Your task to perform on an android device: open app "File Manager" (install if not already installed) Image 0: 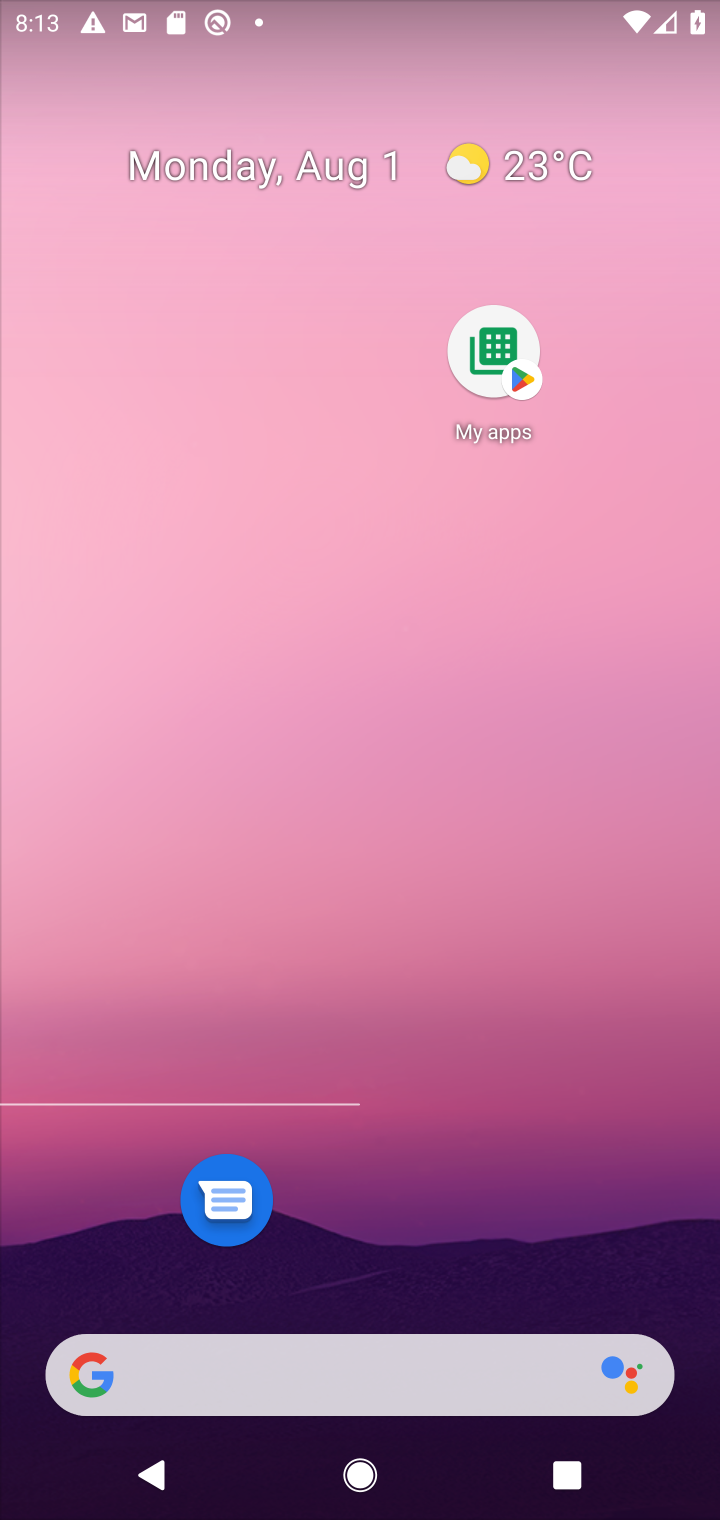
Step 0: drag from (345, 1298) to (535, 98)
Your task to perform on an android device: open app "File Manager" (install if not already installed) Image 1: 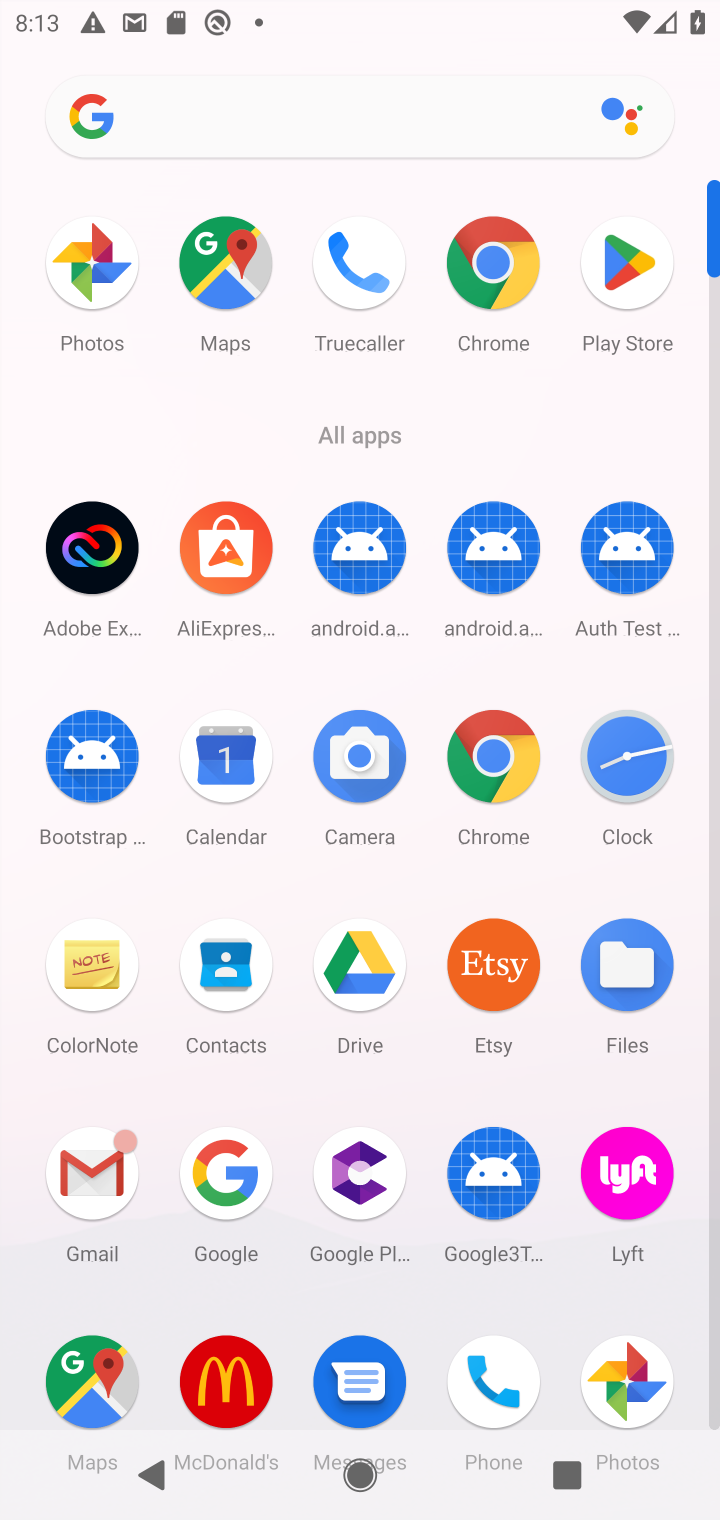
Step 1: click (618, 267)
Your task to perform on an android device: open app "File Manager" (install if not already installed) Image 2: 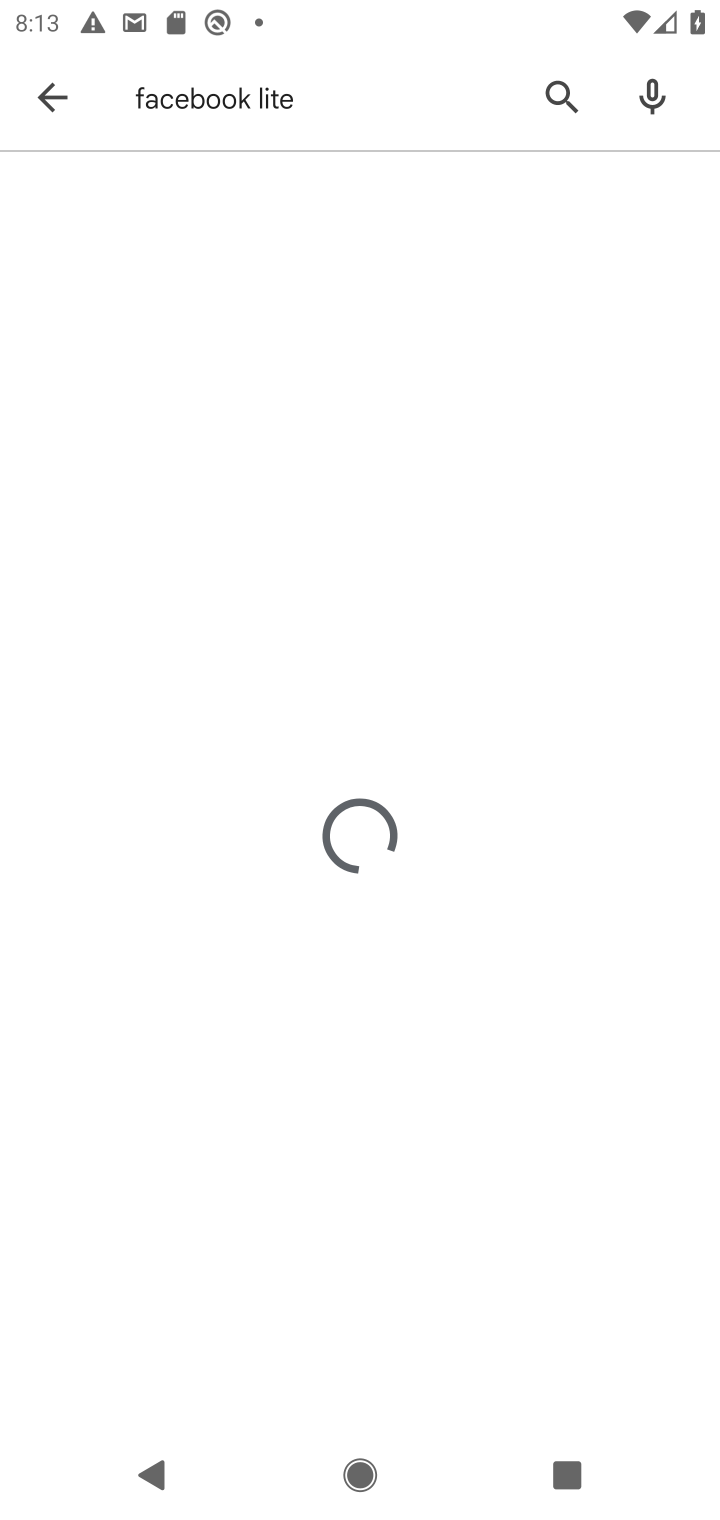
Step 2: click (547, 100)
Your task to perform on an android device: open app "File Manager" (install if not already installed) Image 3: 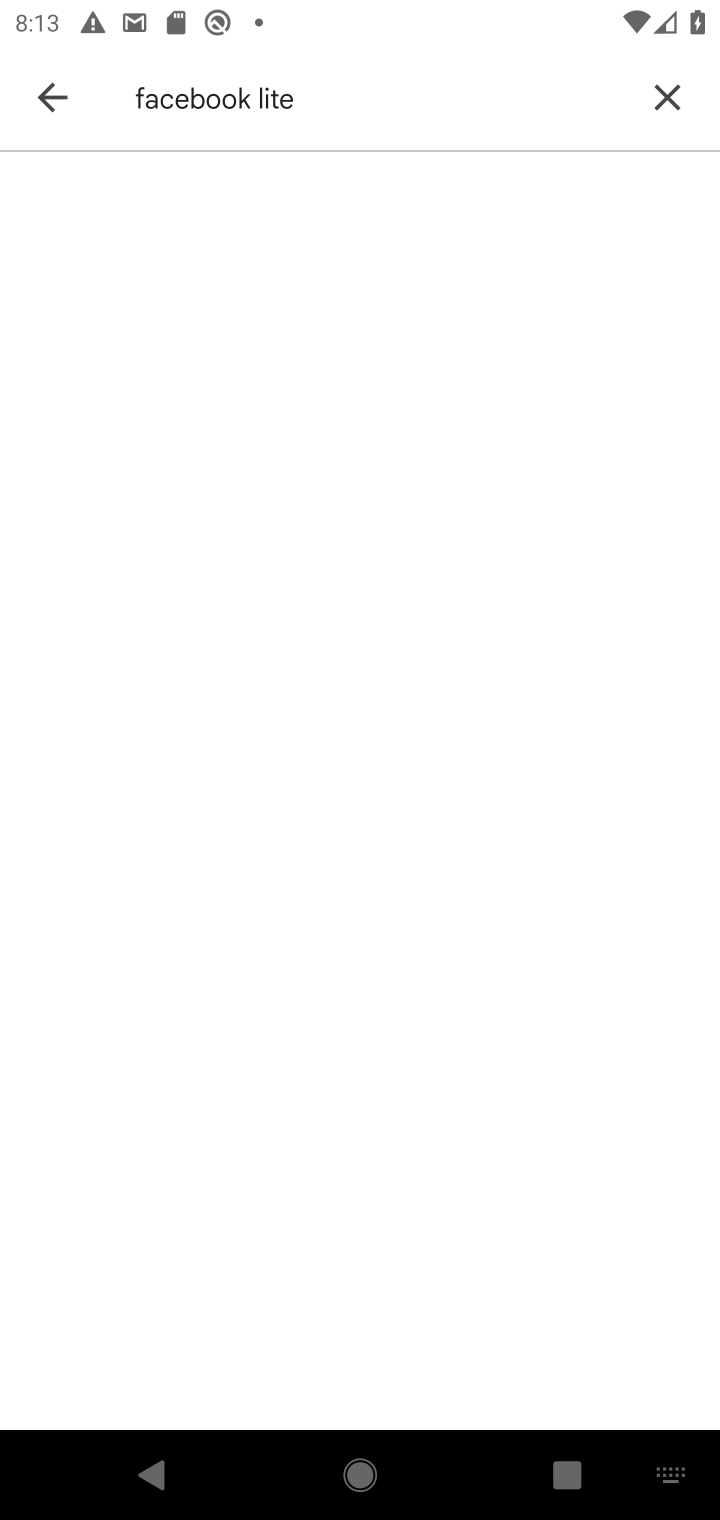
Step 3: click (667, 86)
Your task to perform on an android device: open app "File Manager" (install if not already installed) Image 4: 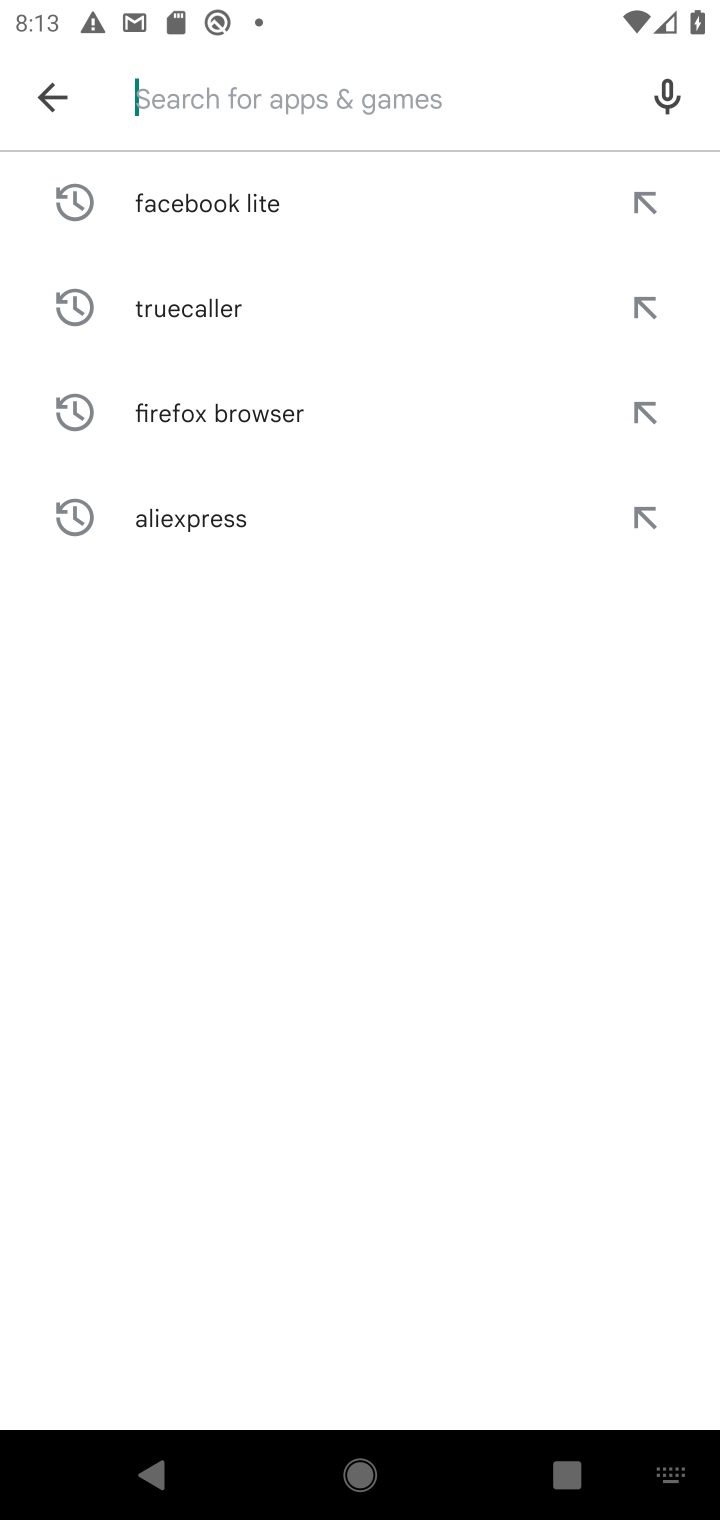
Step 4: click (492, 118)
Your task to perform on an android device: open app "File Manager" (install if not already installed) Image 5: 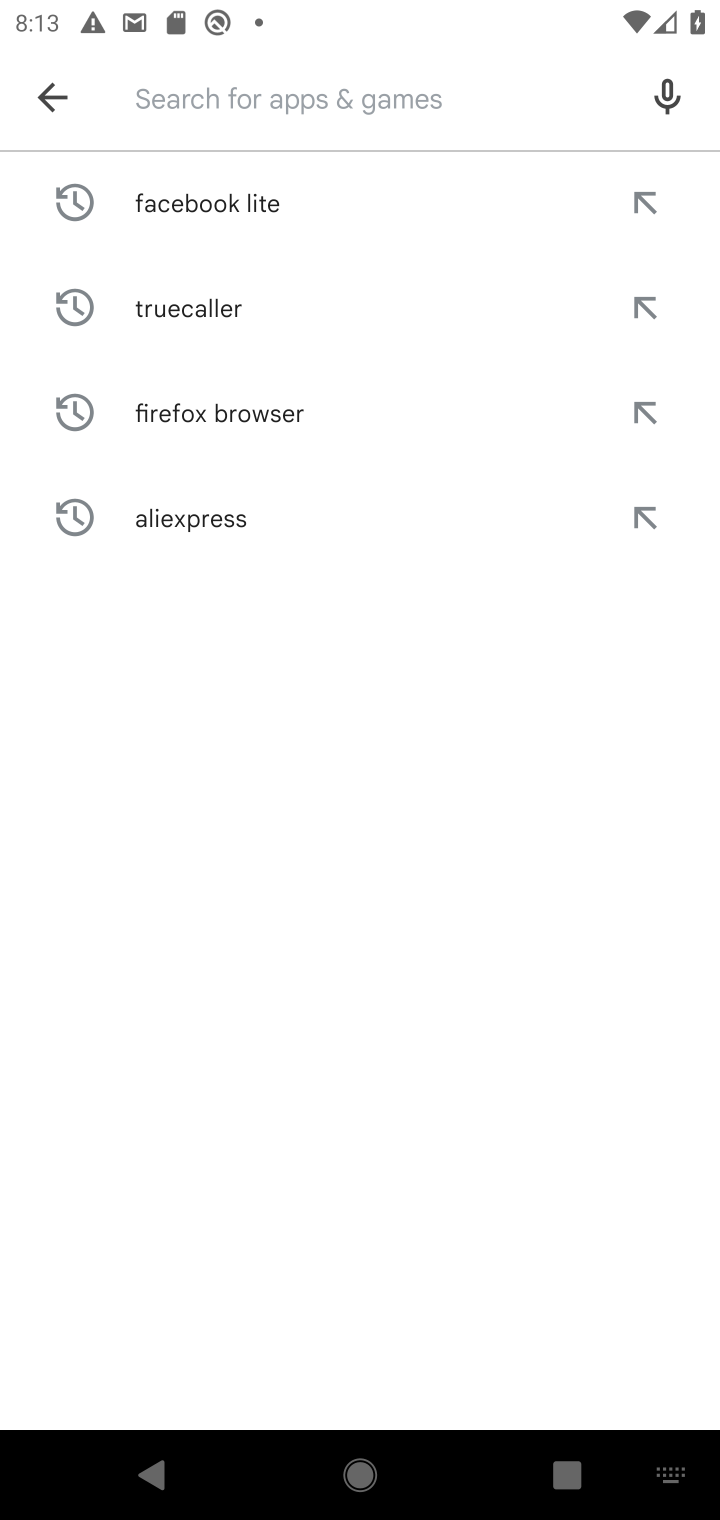
Step 5: type "File Manager"
Your task to perform on an android device: open app "File Manager" (install if not already installed) Image 6: 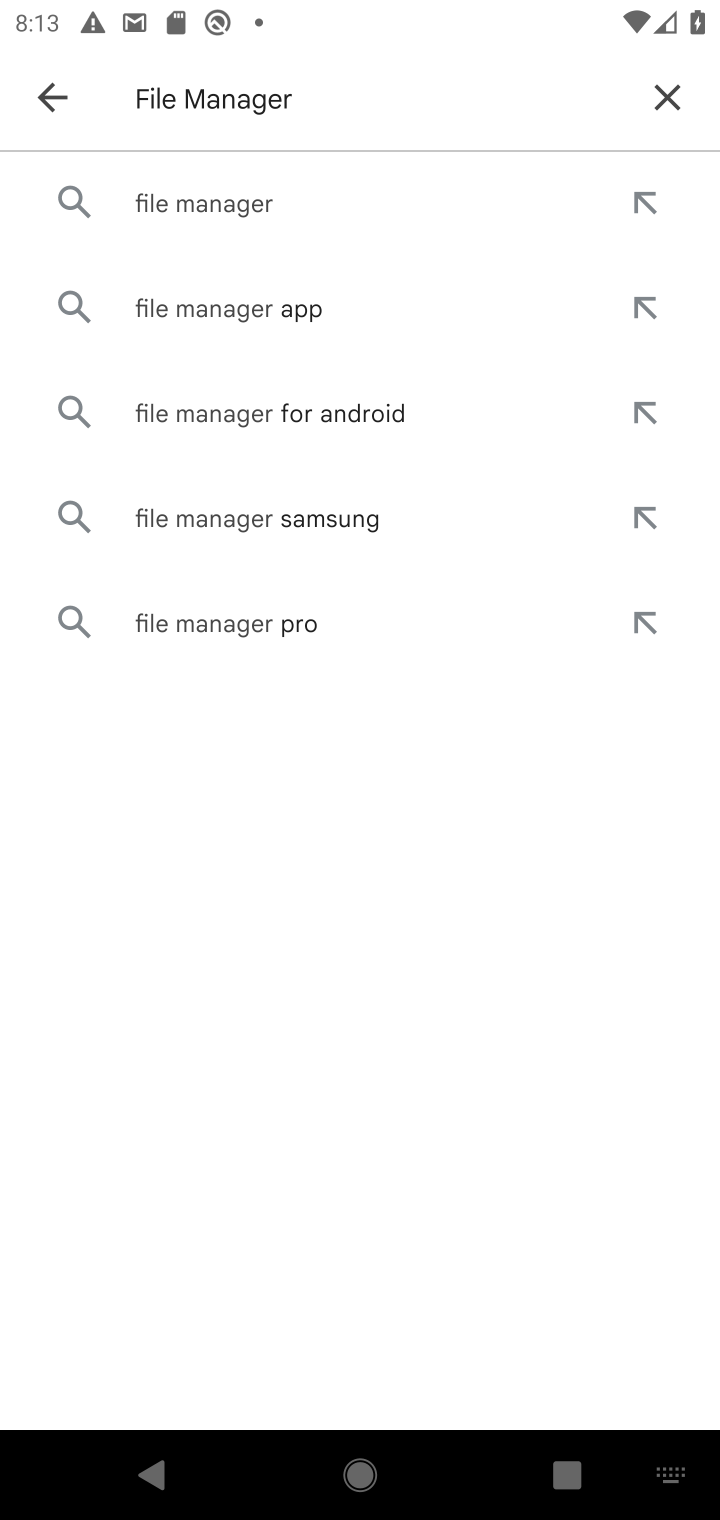
Step 6: click (258, 211)
Your task to perform on an android device: open app "File Manager" (install if not already installed) Image 7: 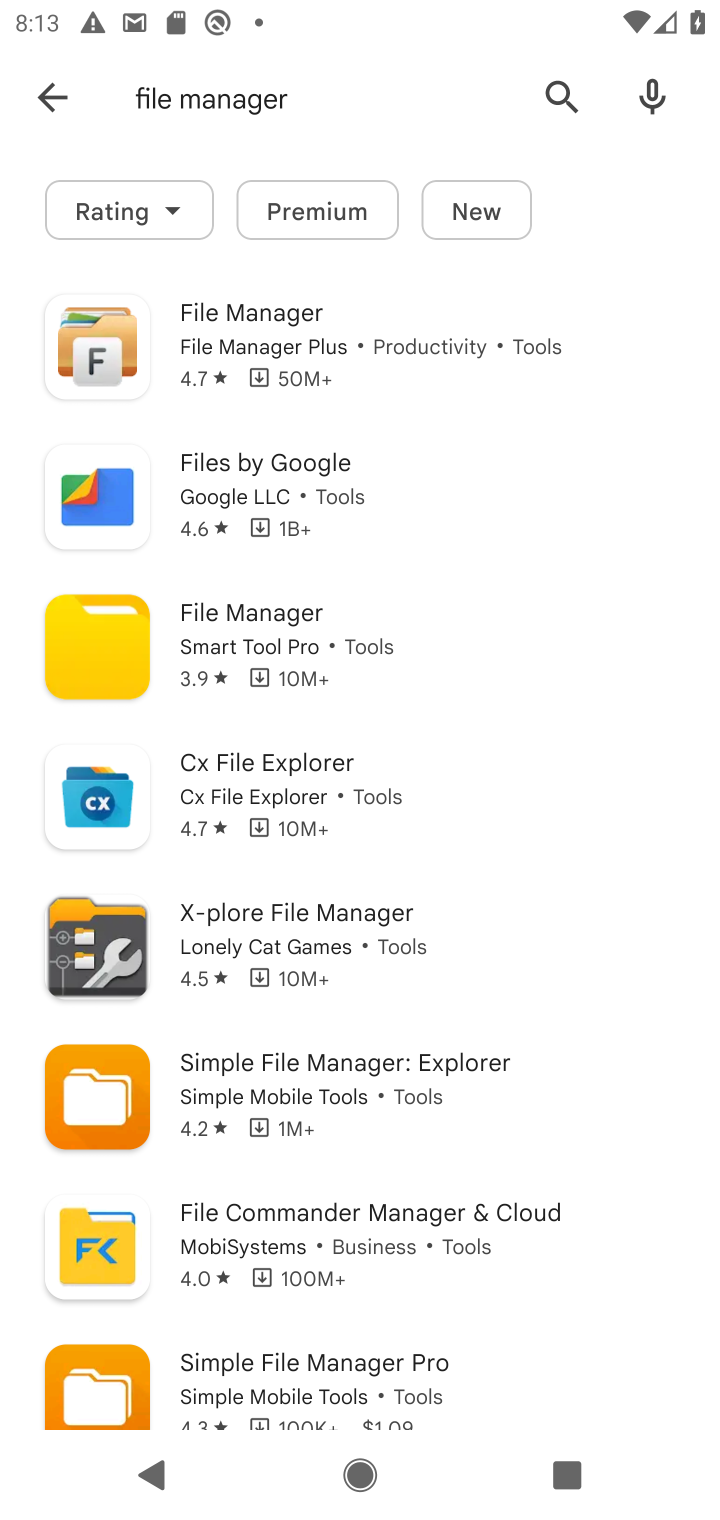
Step 7: click (220, 329)
Your task to perform on an android device: open app "File Manager" (install if not already installed) Image 8: 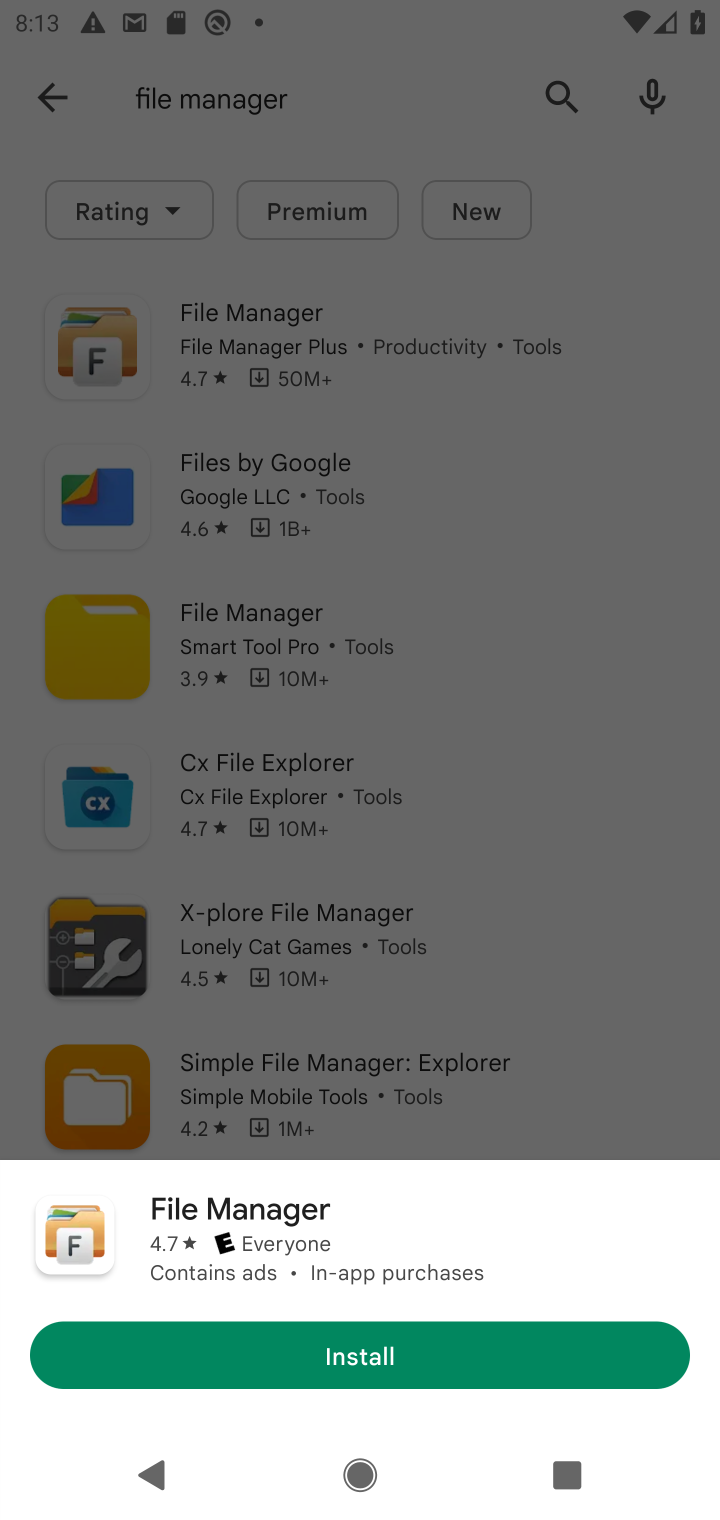
Step 8: click (371, 1364)
Your task to perform on an android device: open app "File Manager" (install if not already installed) Image 9: 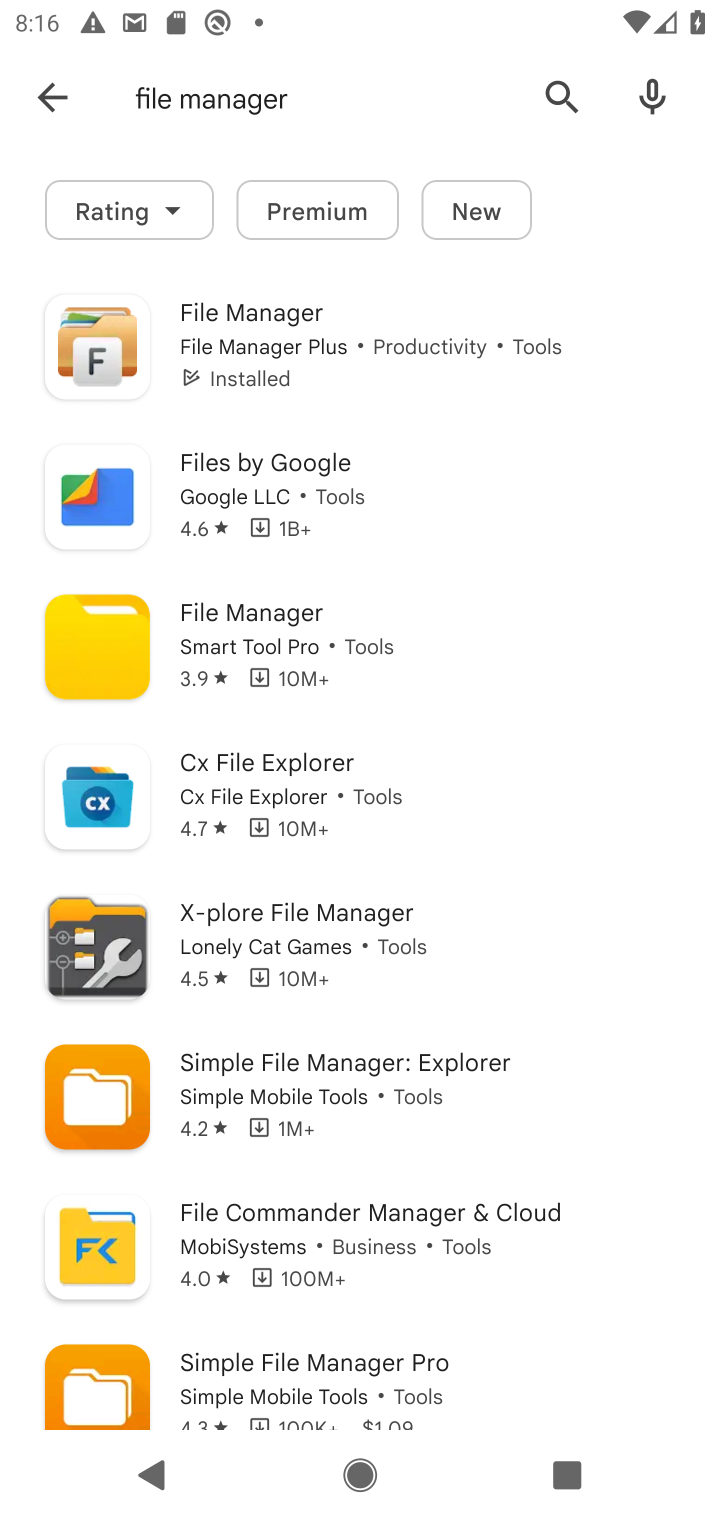
Step 9: click (261, 331)
Your task to perform on an android device: open app "File Manager" (install if not already installed) Image 10: 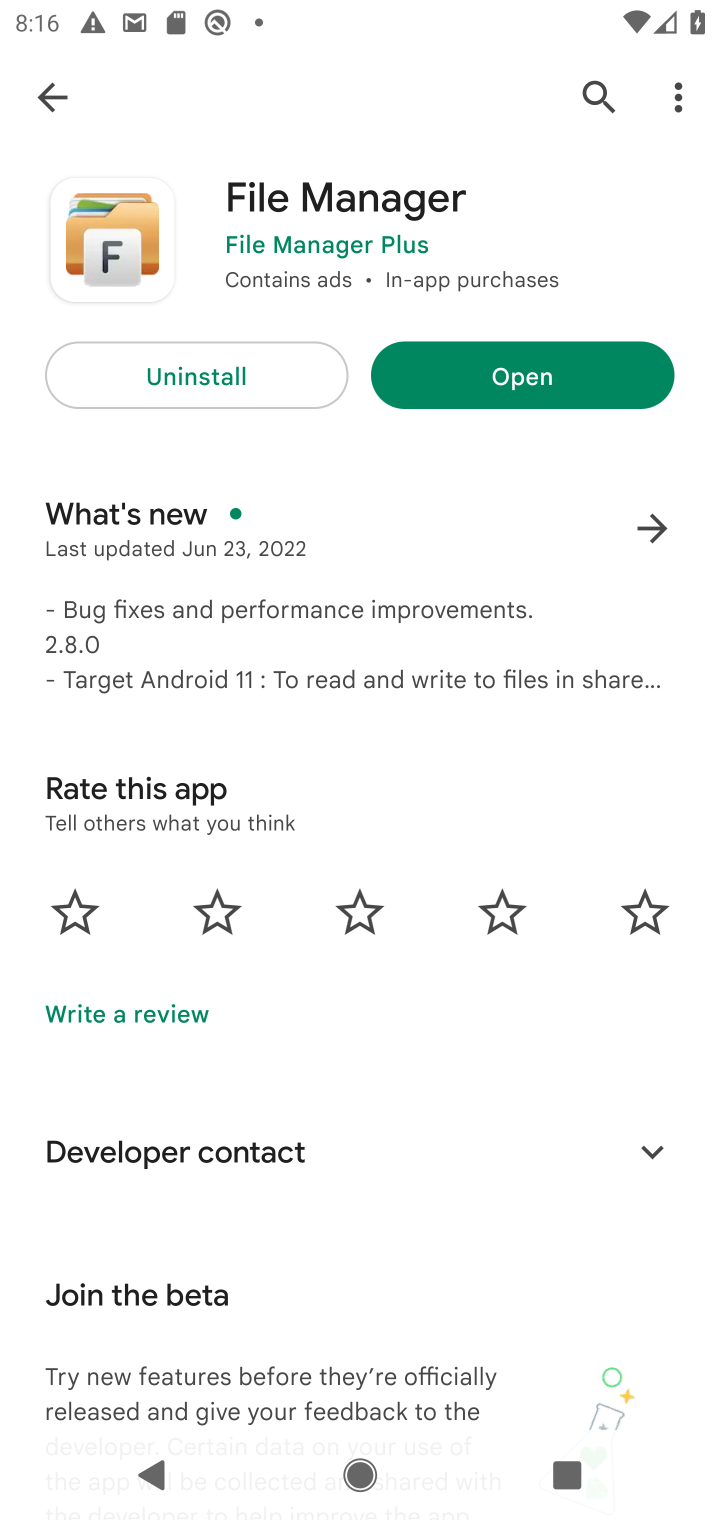
Step 10: click (563, 363)
Your task to perform on an android device: open app "File Manager" (install if not already installed) Image 11: 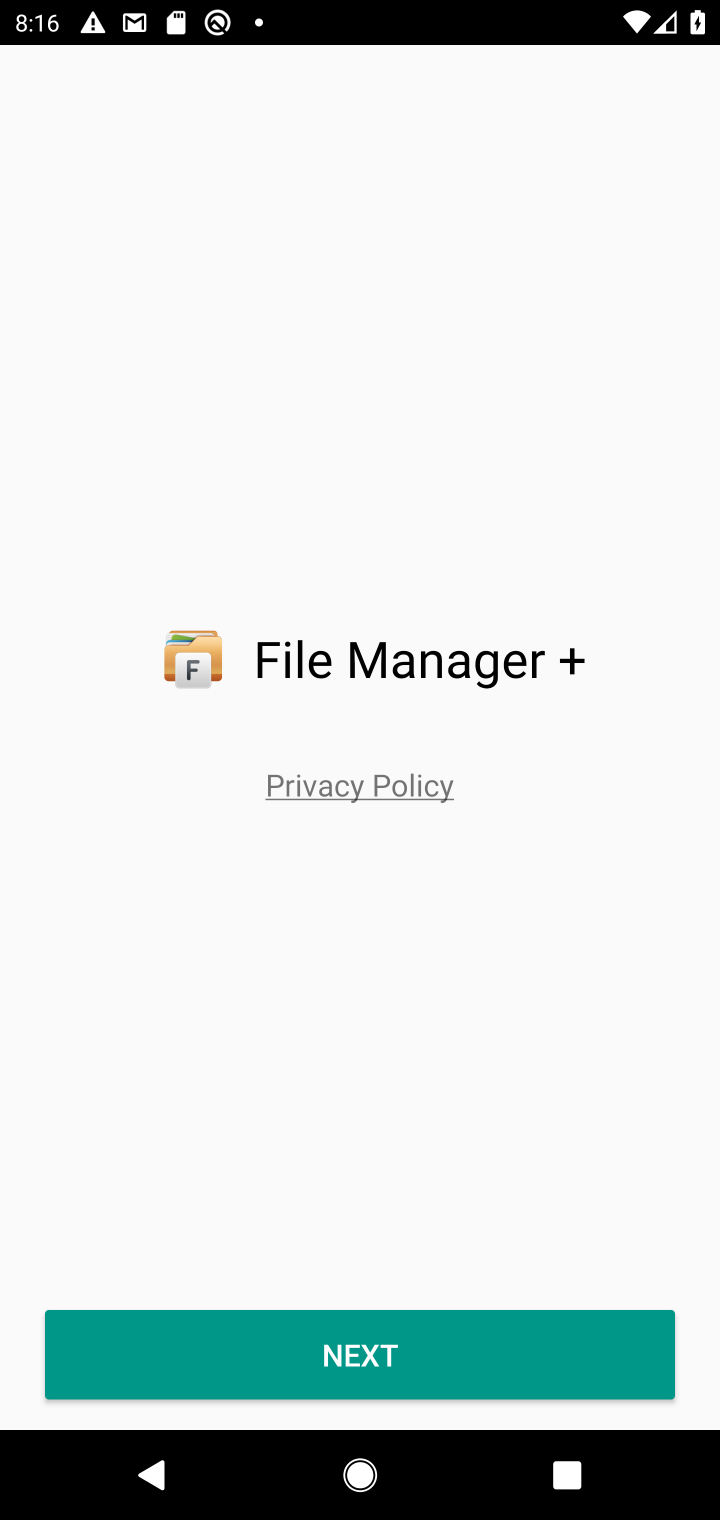
Step 11: task complete